Your task to perform on an android device: Show me popular videos on Youtube Image 0: 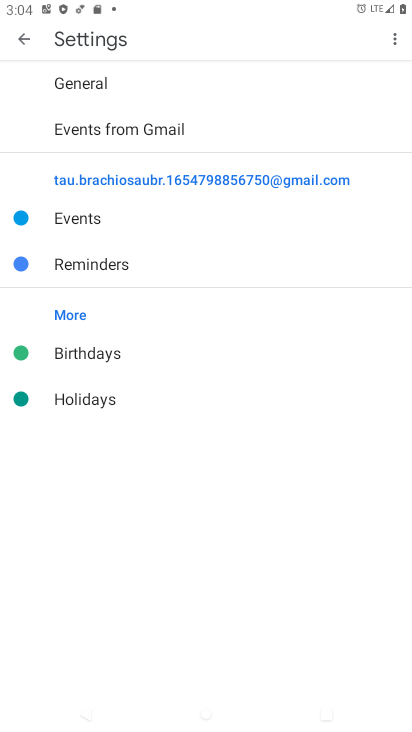
Step 0: press home button
Your task to perform on an android device: Show me popular videos on Youtube Image 1: 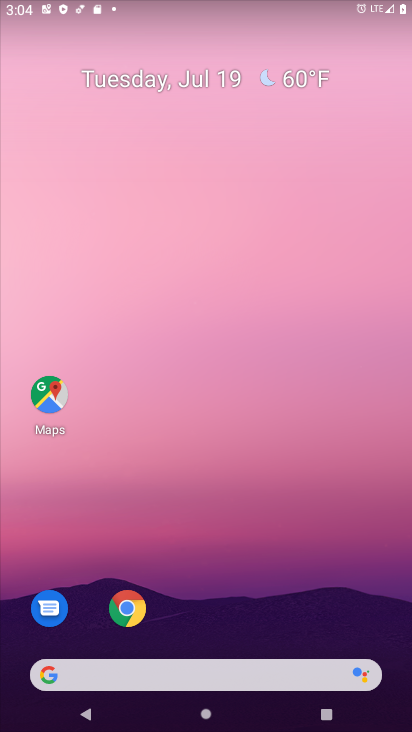
Step 1: drag from (282, 364) to (256, 3)
Your task to perform on an android device: Show me popular videos on Youtube Image 2: 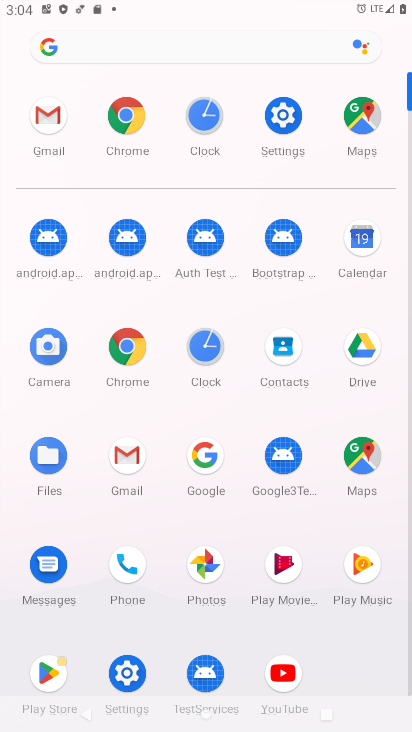
Step 2: click (278, 667)
Your task to perform on an android device: Show me popular videos on Youtube Image 3: 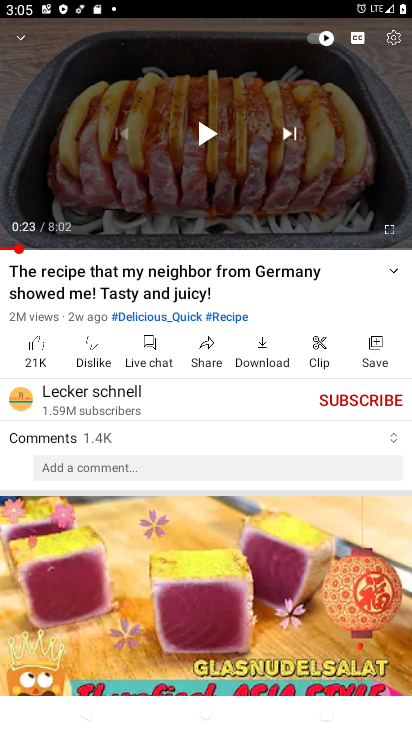
Step 3: press back button
Your task to perform on an android device: Show me popular videos on Youtube Image 4: 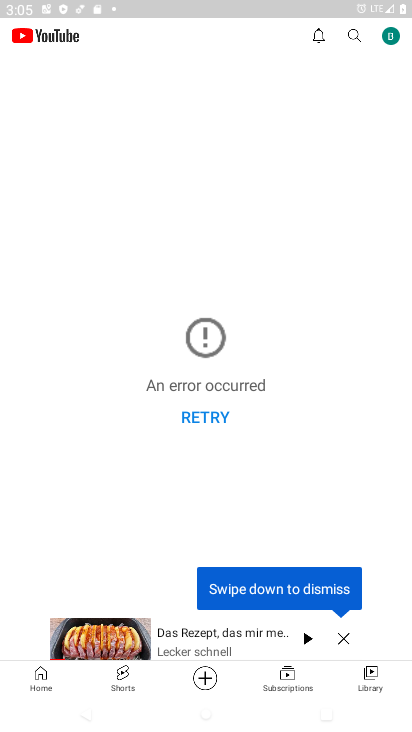
Step 4: click (339, 642)
Your task to perform on an android device: Show me popular videos on Youtube Image 5: 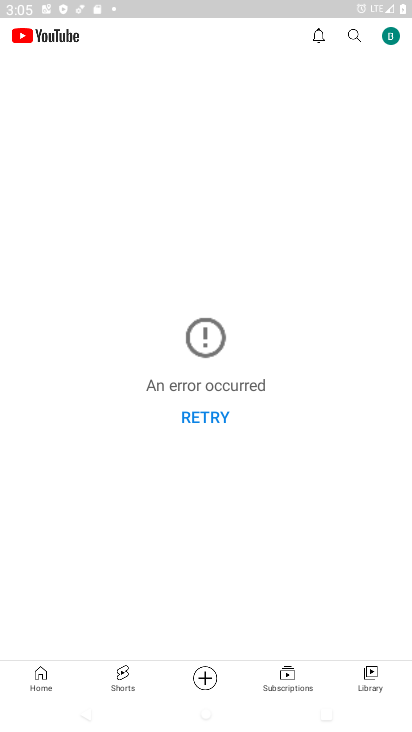
Step 5: click (357, 42)
Your task to perform on an android device: Show me popular videos on Youtube Image 6: 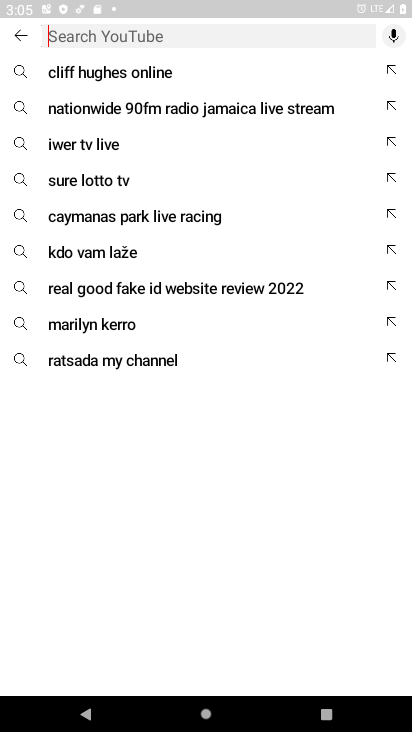
Step 6: type "popular videos"
Your task to perform on an android device: Show me popular videos on Youtube Image 7: 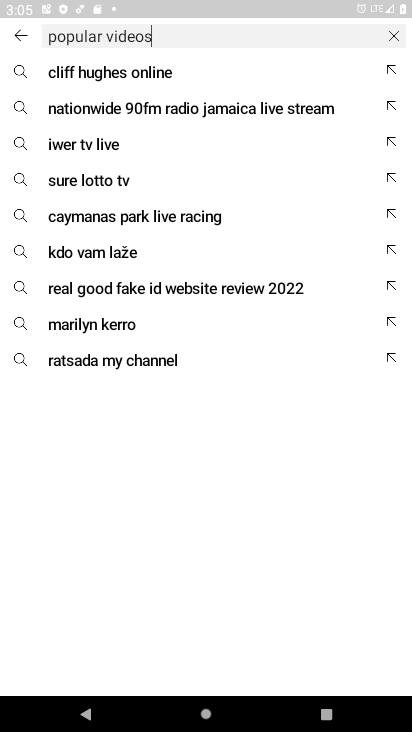
Step 7: press enter
Your task to perform on an android device: Show me popular videos on Youtube Image 8: 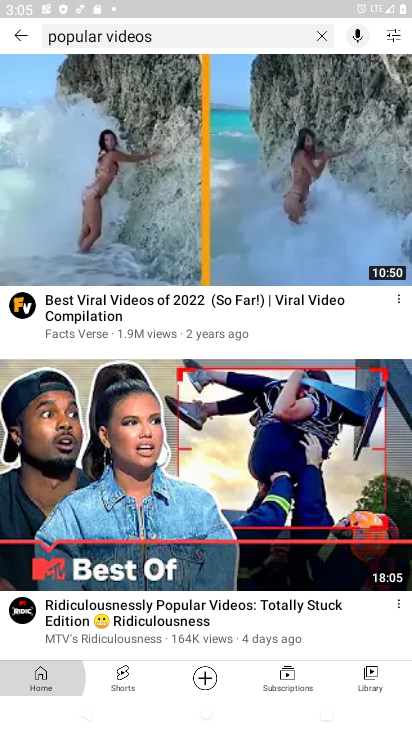
Step 8: task complete